Your task to perform on an android device: Show me recent news Image 0: 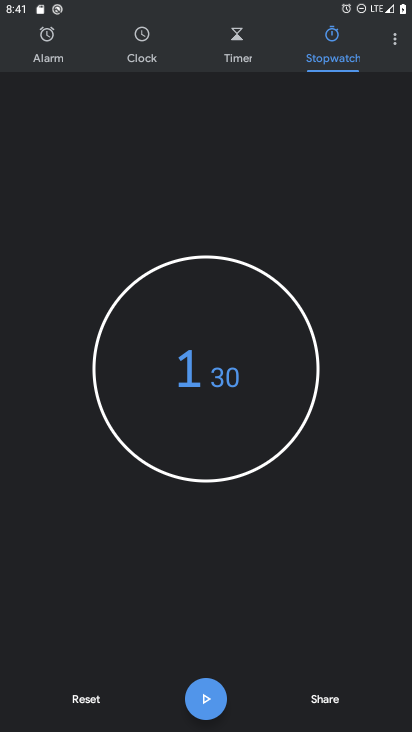
Step 0: press home button
Your task to perform on an android device: Show me recent news Image 1: 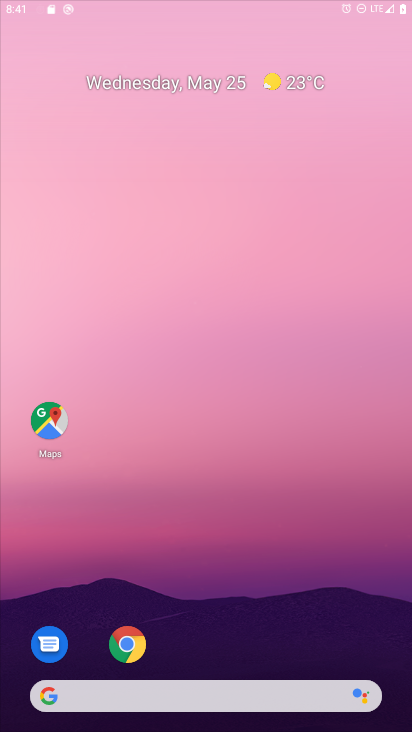
Step 1: drag from (408, 620) to (251, 15)
Your task to perform on an android device: Show me recent news Image 2: 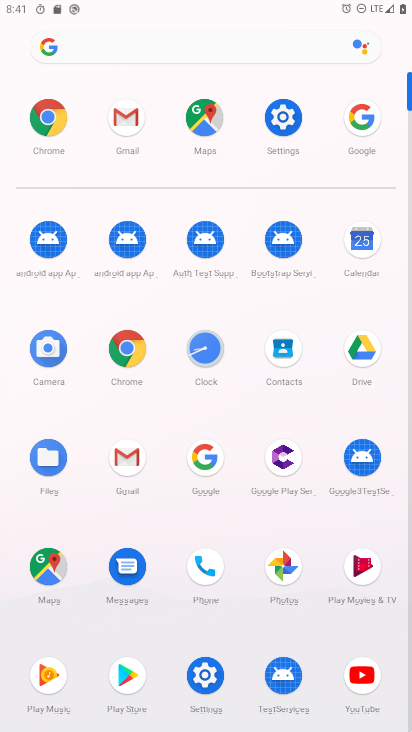
Step 2: click (206, 465)
Your task to perform on an android device: Show me recent news Image 3: 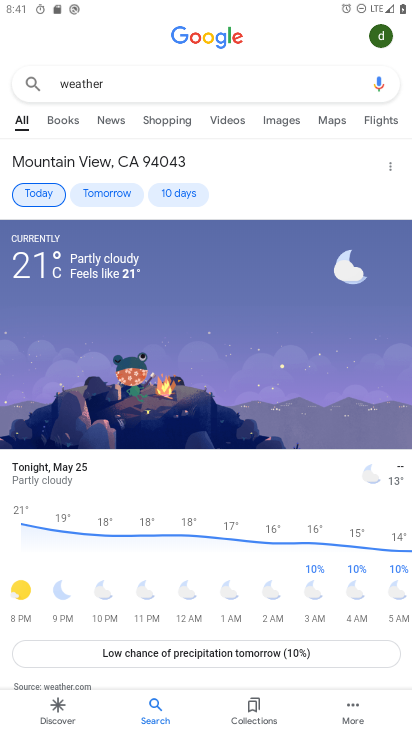
Step 3: press back button
Your task to perform on an android device: Show me recent news Image 4: 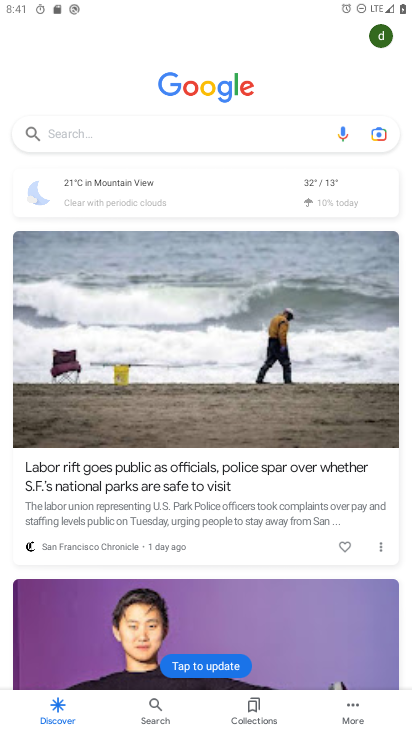
Step 4: click (115, 132)
Your task to perform on an android device: Show me recent news Image 5: 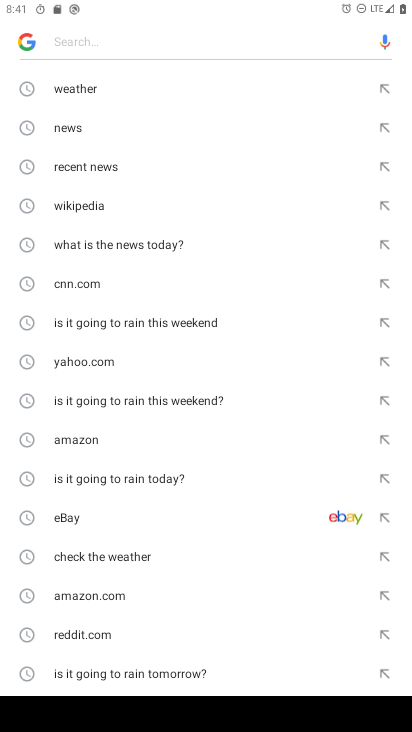
Step 5: click (91, 169)
Your task to perform on an android device: Show me recent news Image 6: 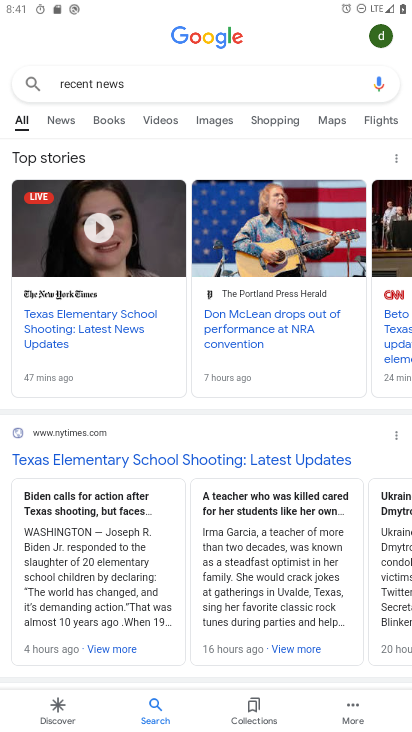
Step 6: task complete